Your task to perform on an android device: Open network settings Image 0: 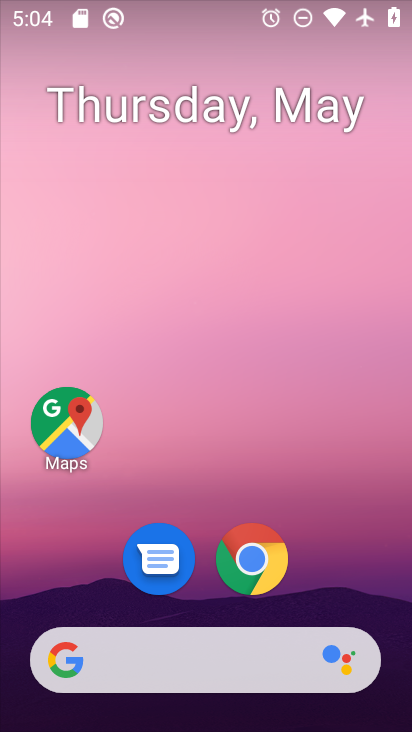
Step 0: drag from (355, 515) to (190, 7)
Your task to perform on an android device: Open network settings Image 1: 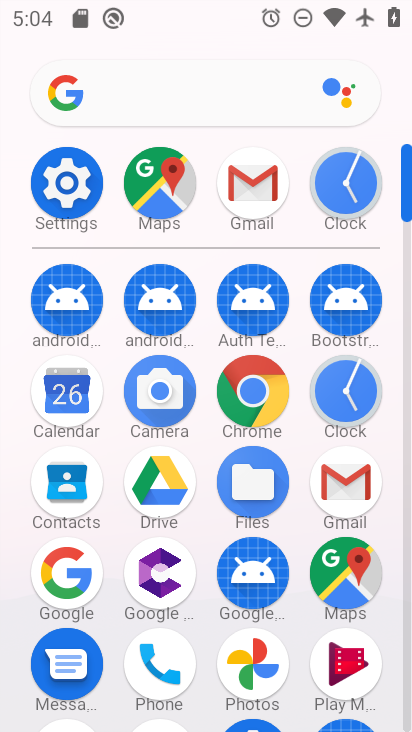
Step 1: click (64, 195)
Your task to perform on an android device: Open network settings Image 2: 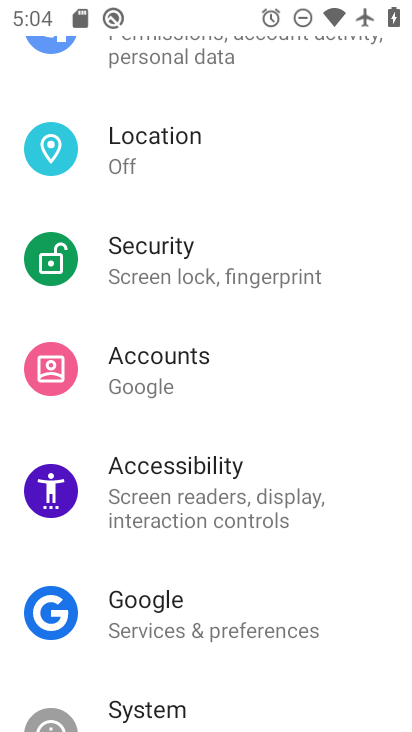
Step 2: drag from (244, 122) to (241, 722)
Your task to perform on an android device: Open network settings Image 3: 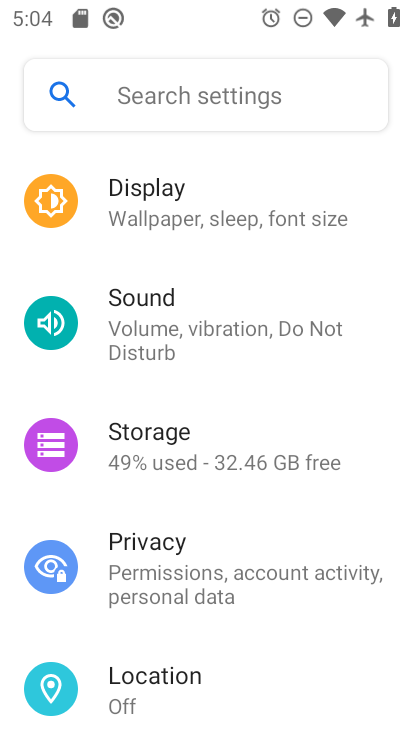
Step 3: drag from (258, 242) to (249, 719)
Your task to perform on an android device: Open network settings Image 4: 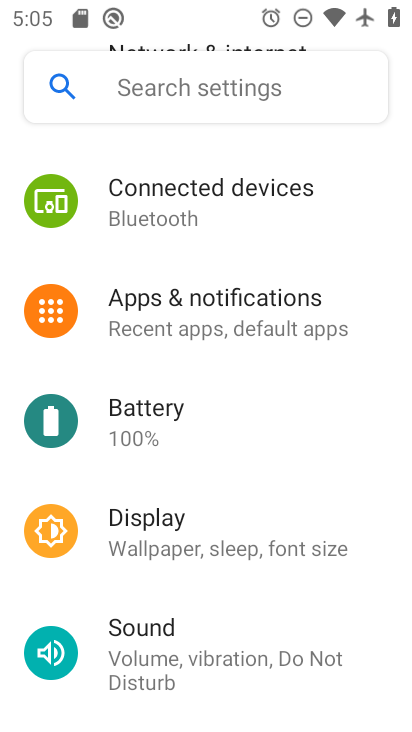
Step 4: drag from (237, 234) to (233, 722)
Your task to perform on an android device: Open network settings Image 5: 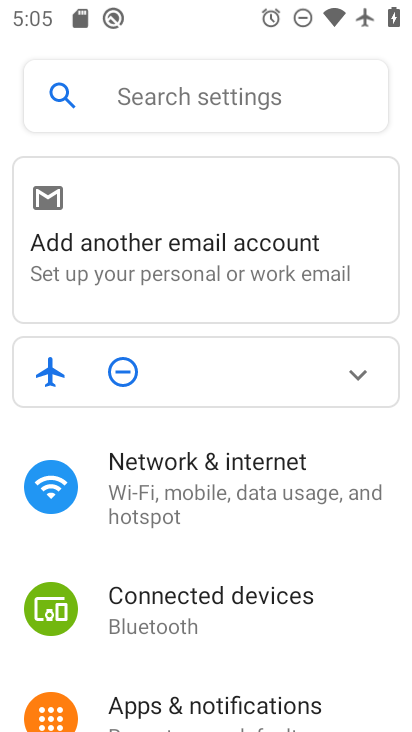
Step 5: click (211, 510)
Your task to perform on an android device: Open network settings Image 6: 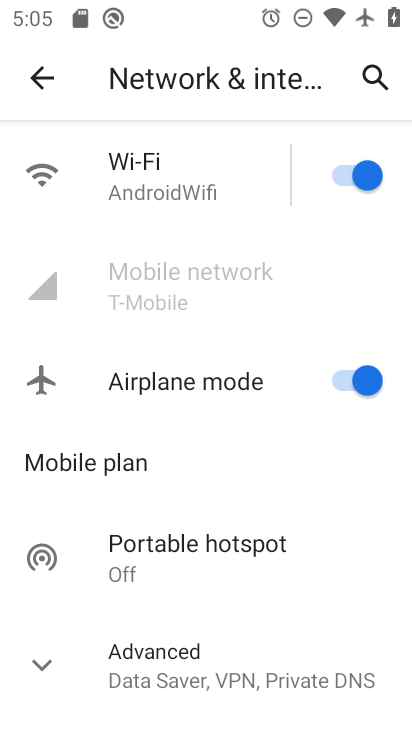
Step 6: task complete